Your task to perform on an android device: turn smart compose on in the gmail app Image 0: 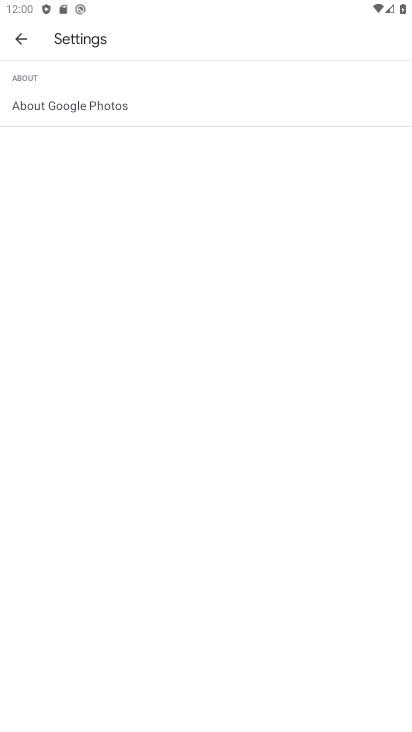
Step 0: press home button
Your task to perform on an android device: turn smart compose on in the gmail app Image 1: 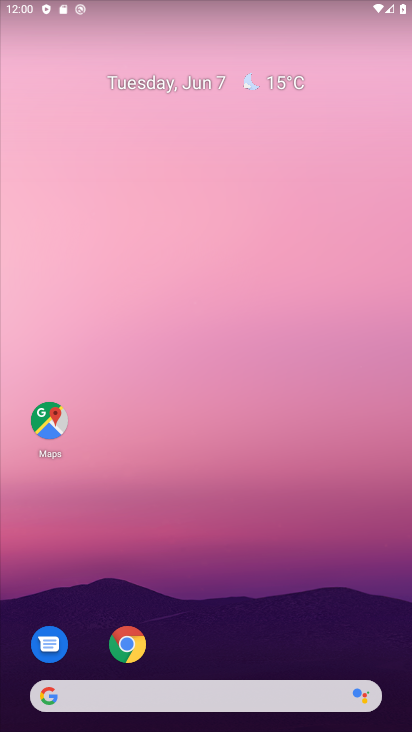
Step 1: click (287, 150)
Your task to perform on an android device: turn smart compose on in the gmail app Image 2: 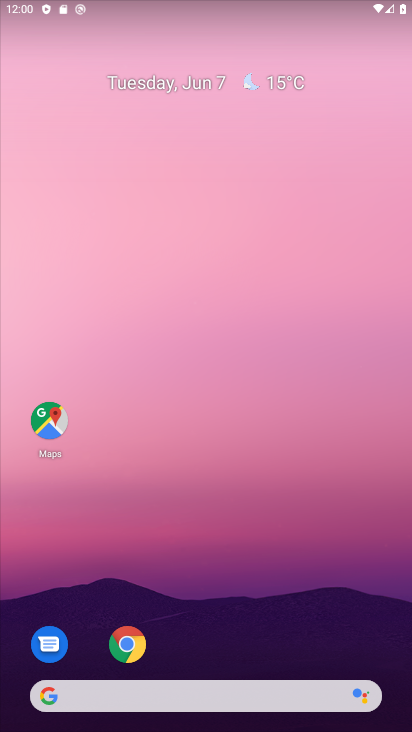
Step 2: drag from (248, 573) to (193, 72)
Your task to perform on an android device: turn smart compose on in the gmail app Image 3: 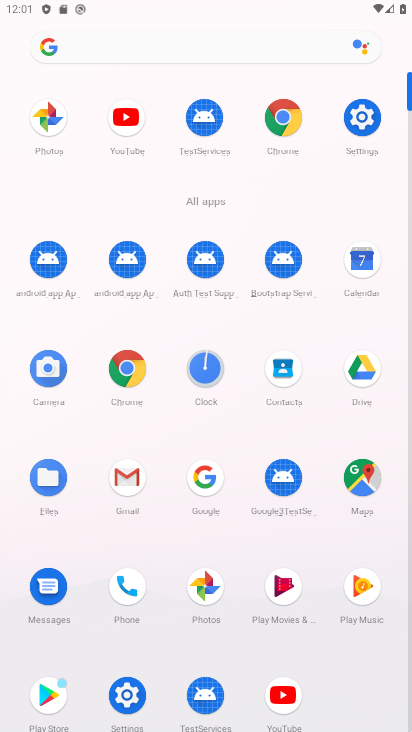
Step 3: click (126, 479)
Your task to perform on an android device: turn smart compose on in the gmail app Image 4: 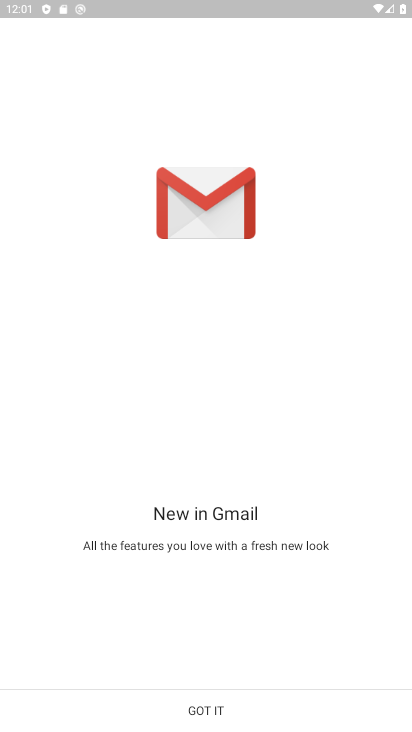
Step 4: click (214, 710)
Your task to perform on an android device: turn smart compose on in the gmail app Image 5: 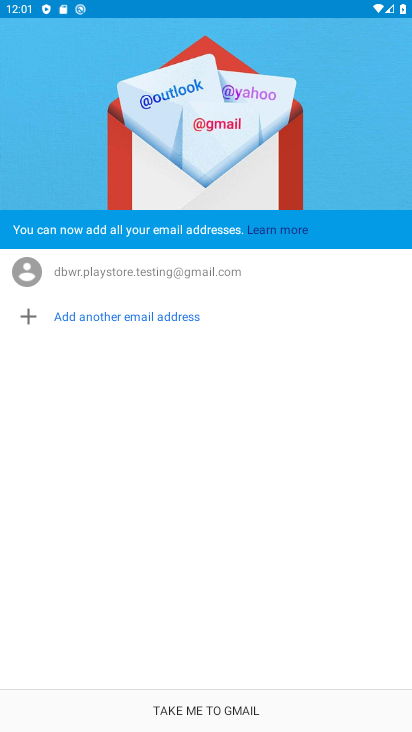
Step 5: click (274, 699)
Your task to perform on an android device: turn smart compose on in the gmail app Image 6: 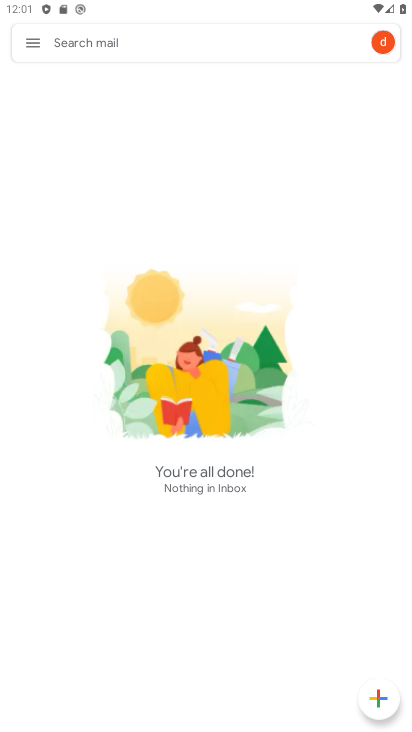
Step 6: click (37, 54)
Your task to perform on an android device: turn smart compose on in the gmail app Image 7: 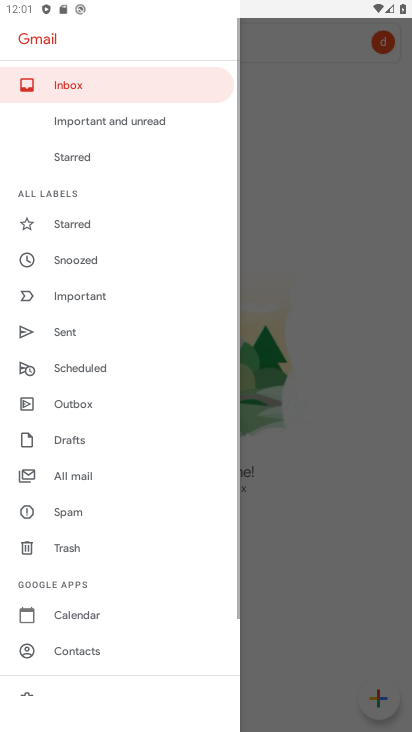
Step 7: drag from (59, 686) to (182, 262)
Your task to perform on an android device: turn smart compose on in the gmail app Image 8: 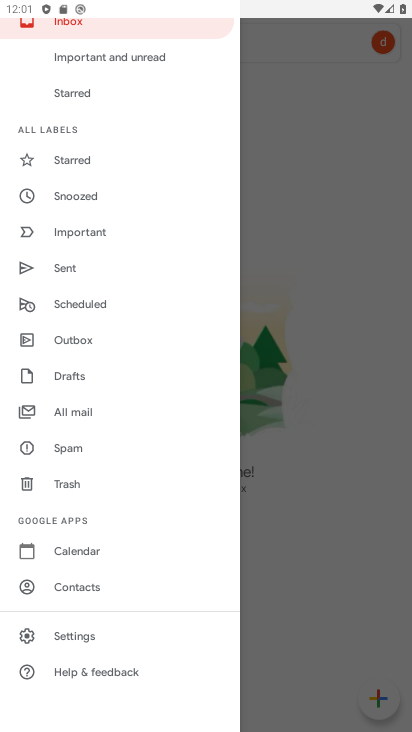
Step 8: click (75, 638)
Your task to perform on an android device: turn smart compose on in the gmail app Image 9: 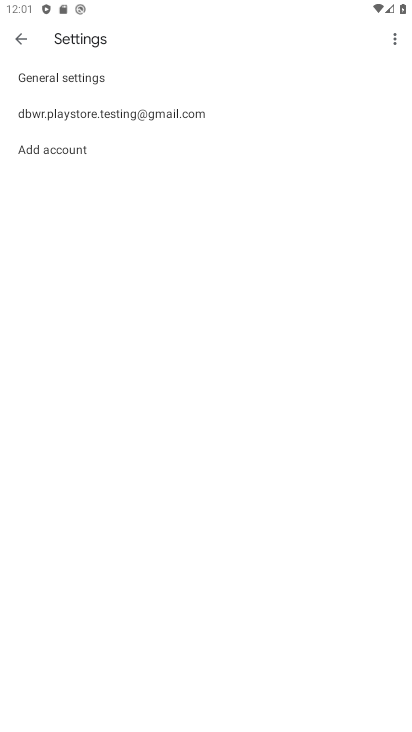
Step 9: click (136, 104)
Your task to perform on an android device: turn smart compose on in the gmail app Image 10: 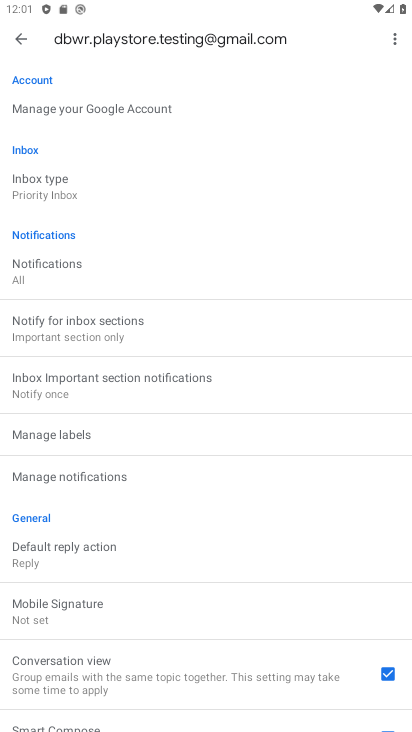
Step 10: task complete